Your task to perform on an android device: remove spam from my inbox in the gmail app Image 0: 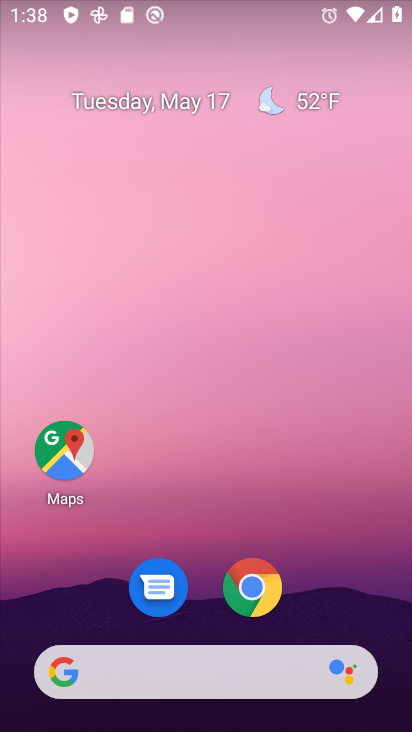
Step 0: drag from (381, 588) to (276, 301)
Your task to perform on an android device: remove spam from my inbox in the gmail app Image 1: 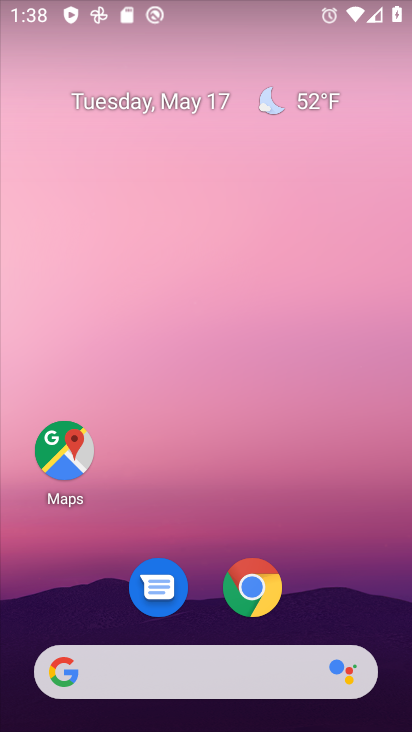
Step 1: drag from (367, 578) to (227, 19)
Your task to perform on an android device: remove spam from my inbox in the gmail app Image 2: 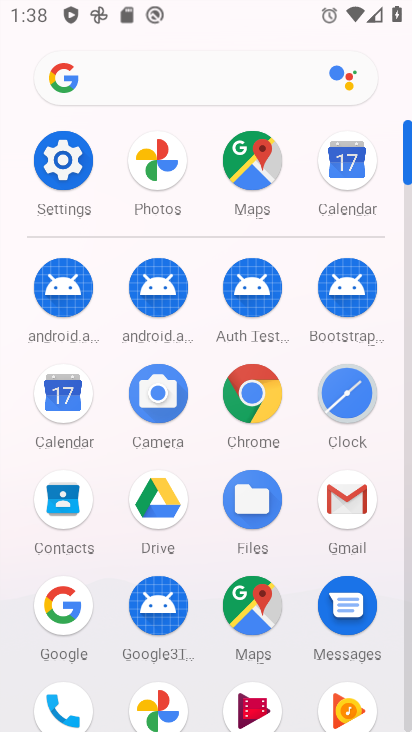
Step 2: click (355, 511)
Your task to perform on an android device: remove spam from my inbox in the gmail app Image 3: 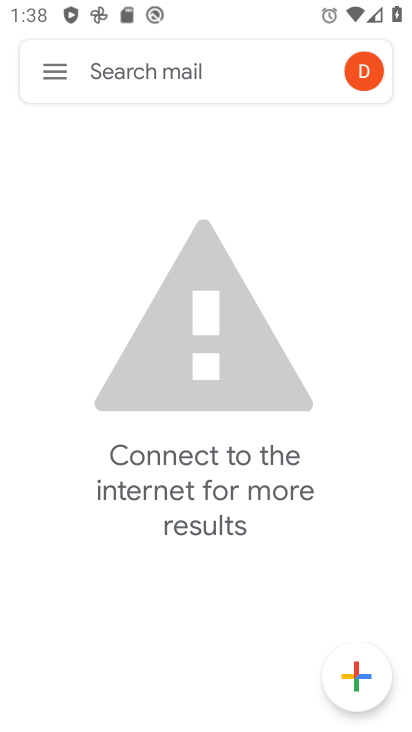
Step 3: click (55, 78)
Your task to perform on an android device: remove spam from my inbox in the gmail app Image 4: 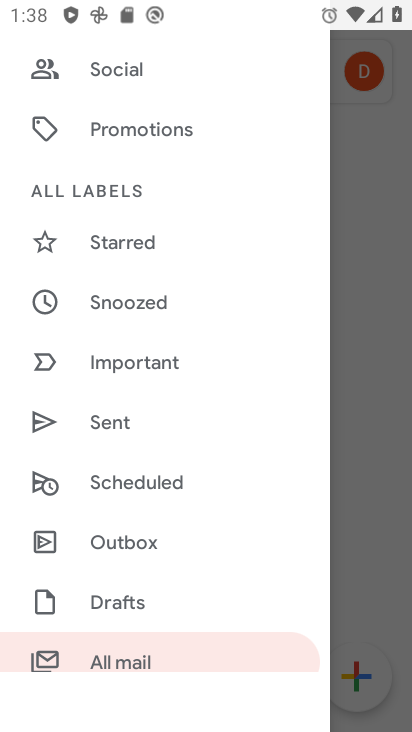
Step 4: drag from (154, 582) to (125, 376)
Your task to perform on an android device: remove spam from my inbox in the gmail app Image 5: 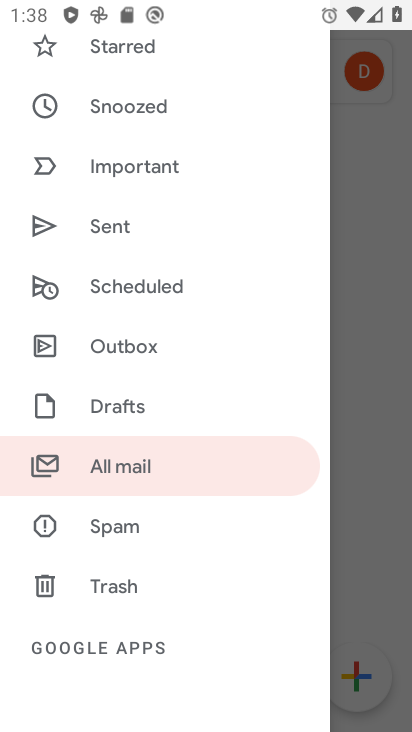
Step 5: click (182, 523)
Your task to perform on an android device: remove spam from my inbox in the gmail app Image 6: 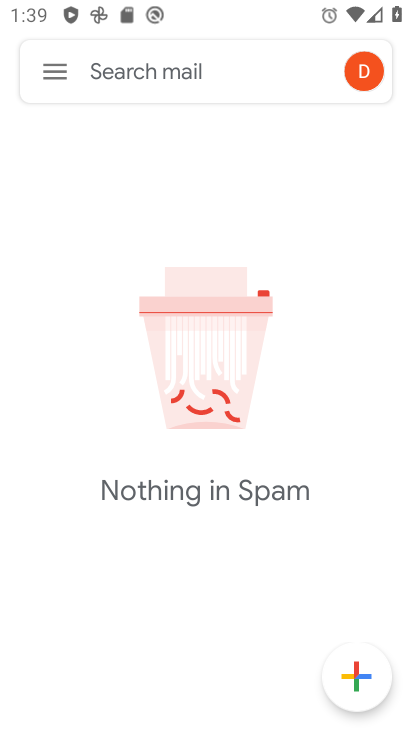
Step 6: task complete